Your task to perform on an android device: Clear the cart on bestbuy.com. Search for razer kraken on bestbuy.com, select the first entry, add it to the cart, then select checkout. Image 0: 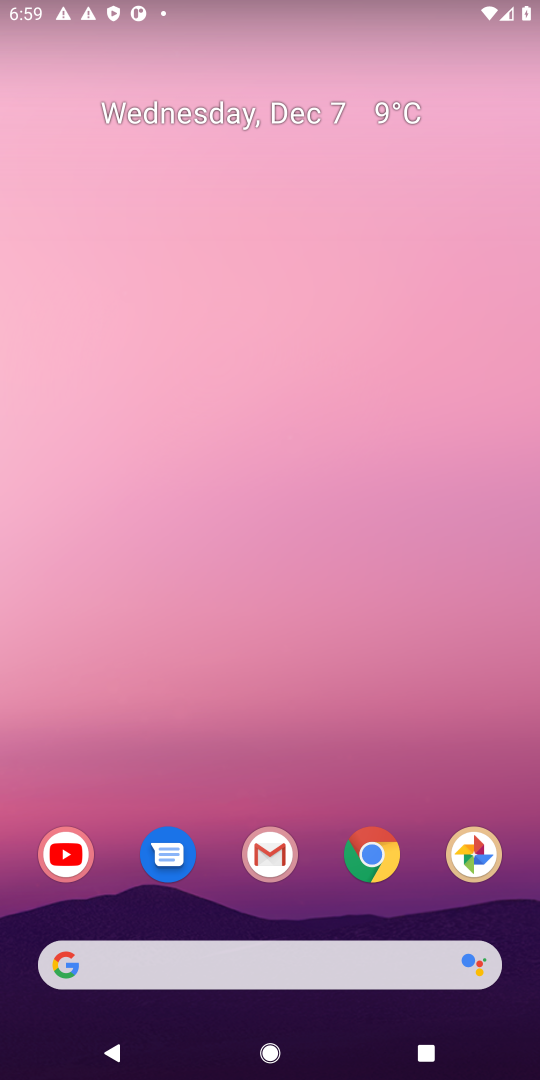
Step 0: click (333, 965)
Your task to perform on an android device: Clear the cart on bestbuy.com. Search for razer kraken on bestbuy.com, select the first entry, add it to the cart, then select checkout. Image 1: 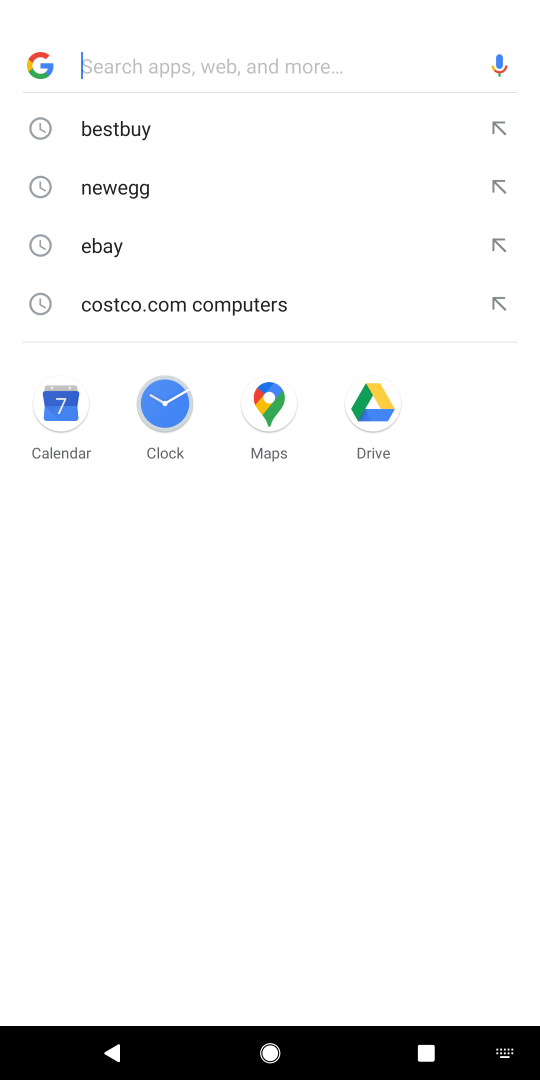
Step 1: click (195, 134)
Your task to perform on an android device: Clear the cart on bestbuy.com. Search for razer kraken on bestbuy.com, select the first entry, add it to the cart, then select checkout. Image 2: 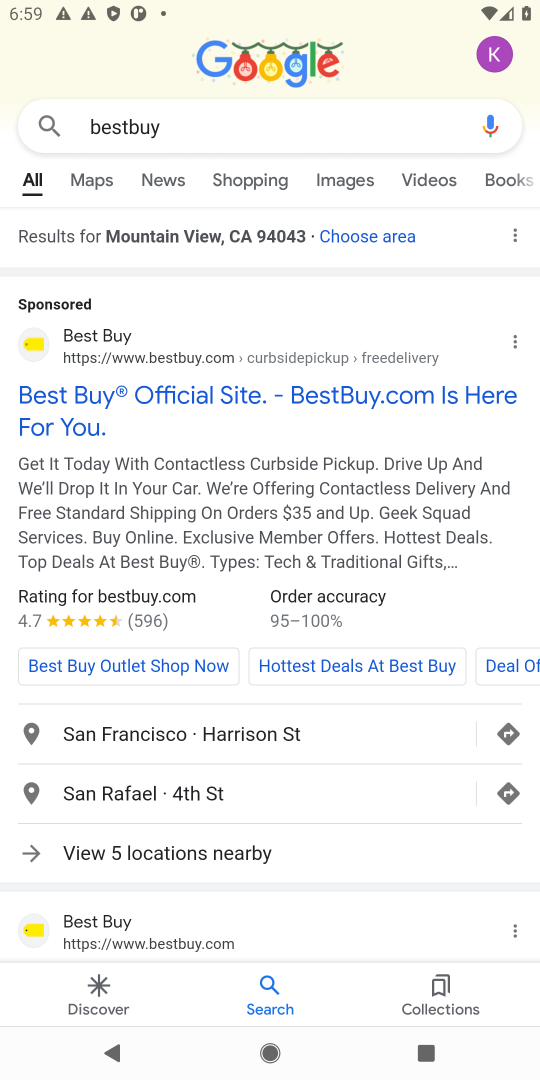
Step 2: click (225, 389)
Your task to perform on an android device: Clear the cart on bestbuy.com. Search for razer kraken on bestbuy.com, select the first entry, add it to the cart, then select checkout. Image 3: 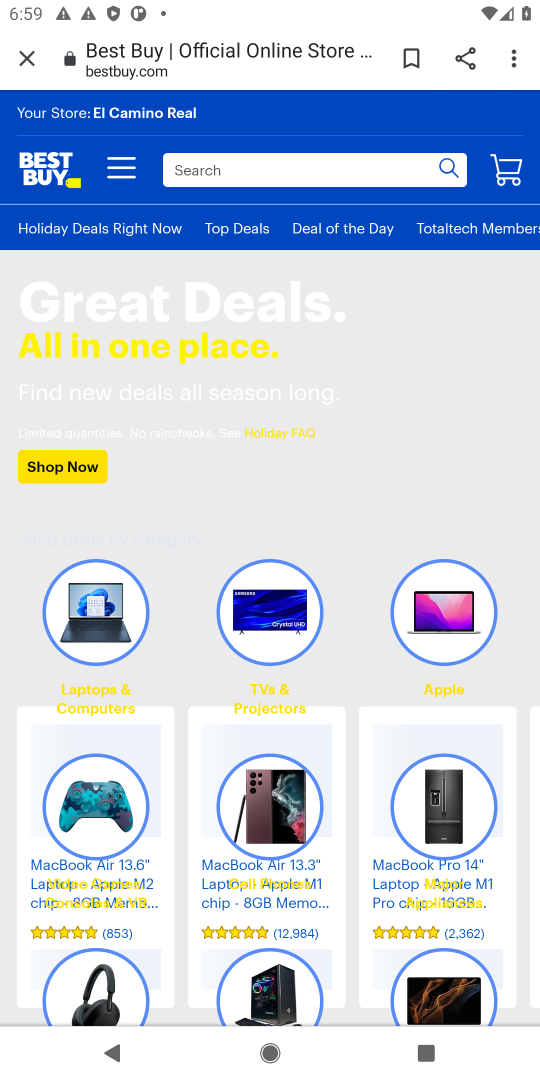
Step 3: click (301, 173)
Your task to perform on an android device: Clear the cart on bestbuy.com. Search for razer kraken on bestbuy.com, select the first entry, add it to the cart, then select checkout. Image 4: 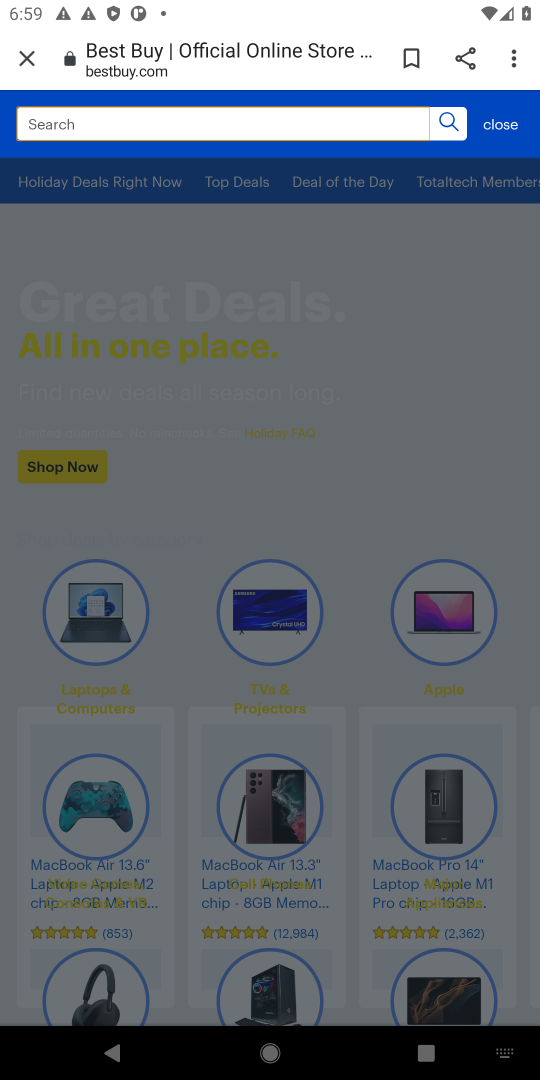
Step 4: type "razer karken"
Your task to perform on an android device: Clear the cart on bestbuy.com. Search for razer kraken on bestbuy.com, select the first entry, add it to the cart, then select checkout. Image 5: 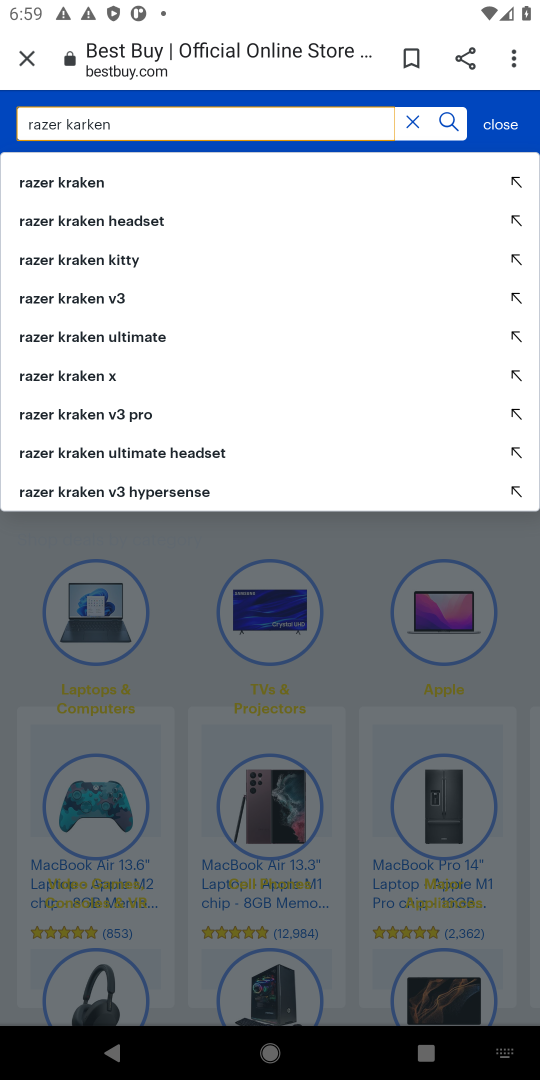
Step 5: click (75, 181)
Your task to perform on an android device: Clear the cart on bestbuy.com. Search for razer kraken on bestbuy.com, select the first entry, add it to the cart, then select checkout. Image 6: 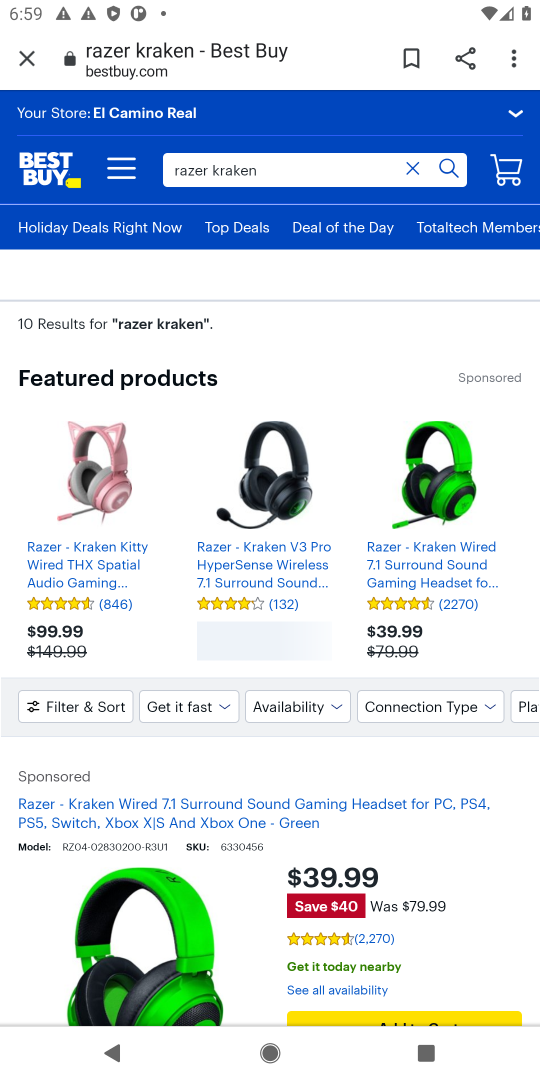
Step 6: click (447, 1014)
Your task to perform on an android device: Clear the cart on bestbuy.com. Search for razer kraken on bestbuy.com, select the first entry, add it to the cart, then select checkout. Image 7: 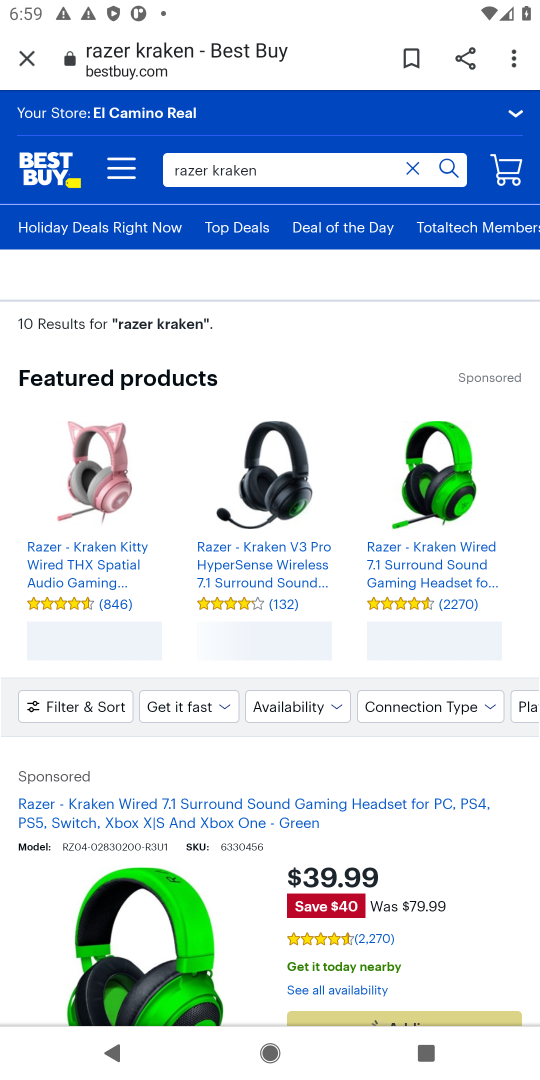
Step 7: task complete